Your task to perform on an android device: turn notification dots on Image 0: 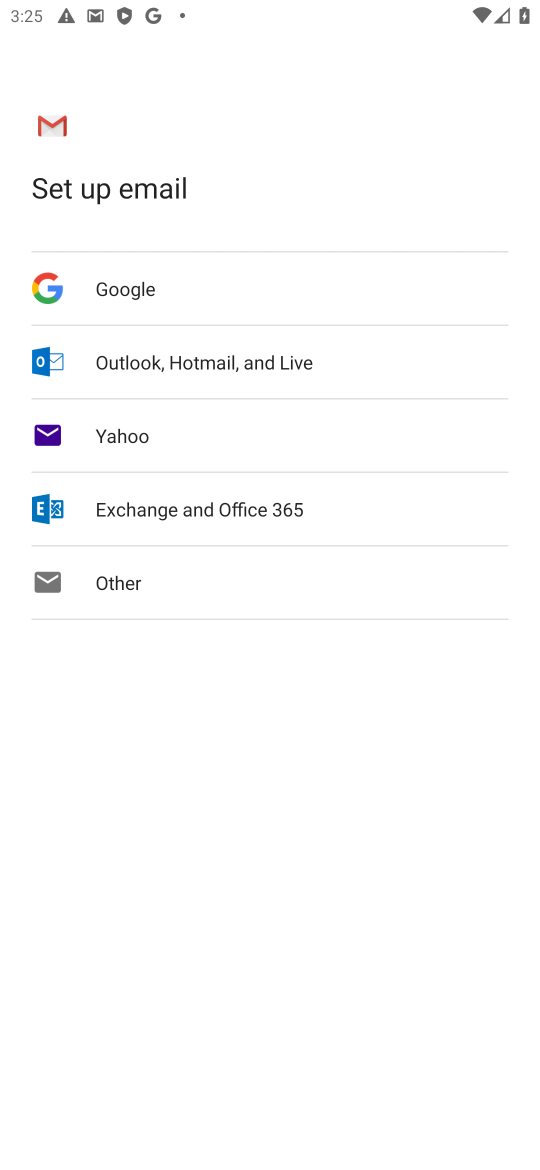
Step 0: press home button
Your task to perform on an android device: turn notification dots on Image 1: 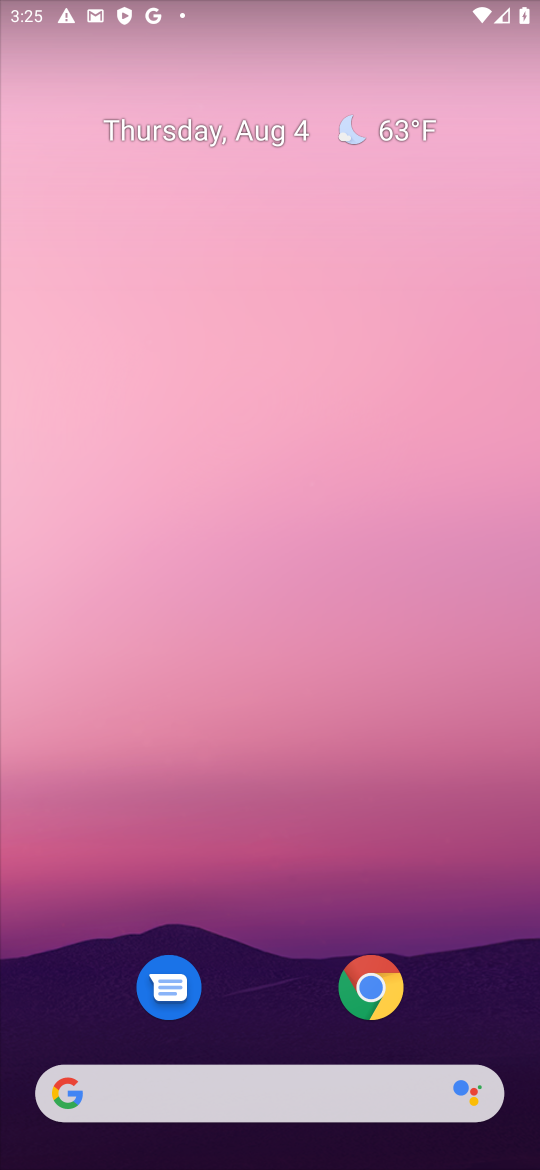
Step 1: drag from (267, 814) to (260, 265)
Your task to perform on an android device: turn notification dots on Image 2: 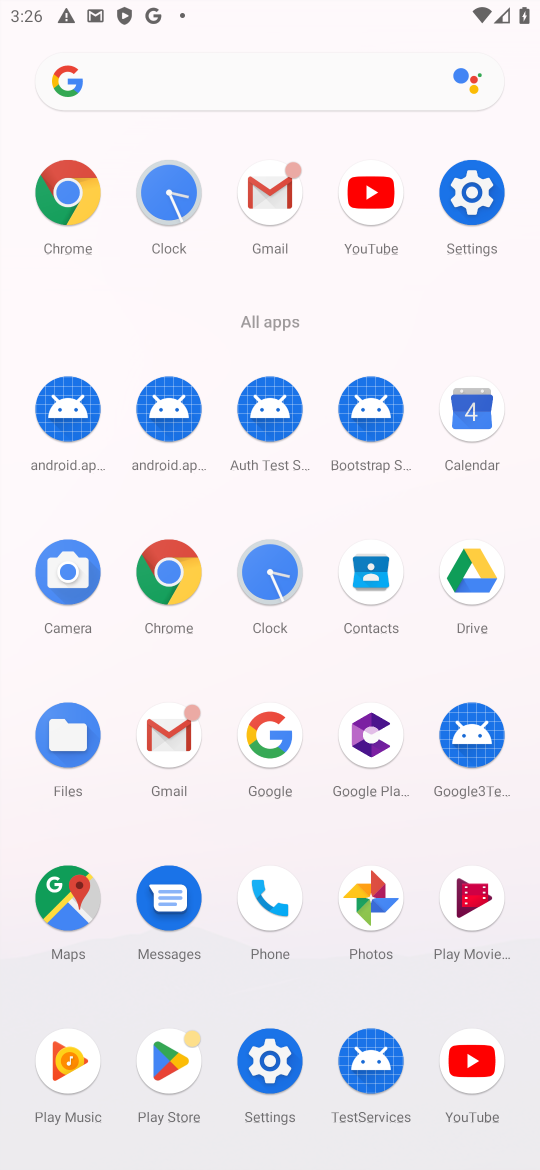
Step 2: click (460, 205)
Your task to perform on an android device: turn notification dots on Image 3: 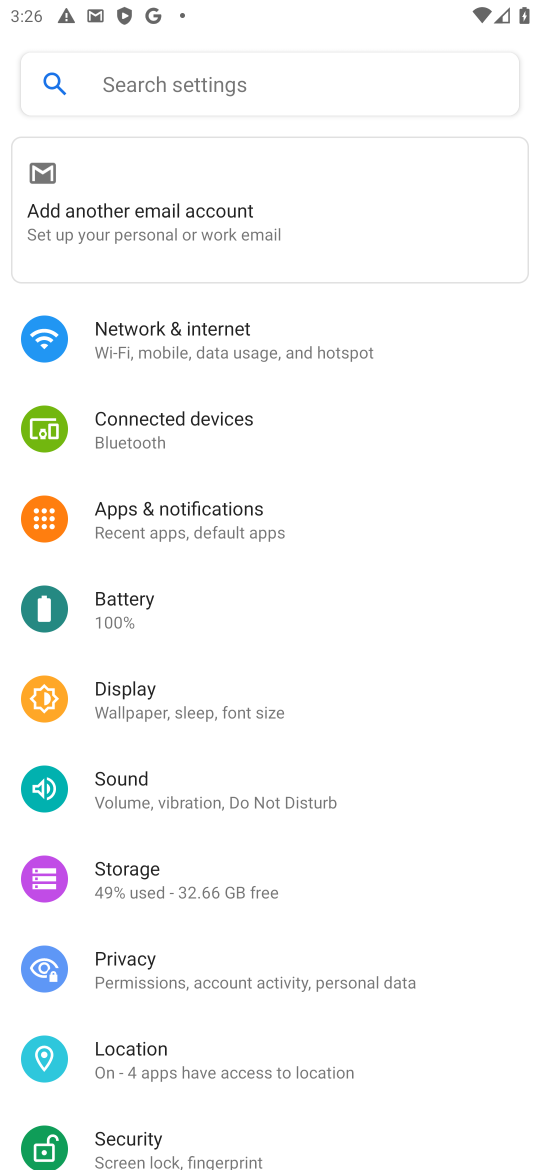
Step 3: click (123, 518)
Your task to perform on an android device: turn notification dots on Image 4: 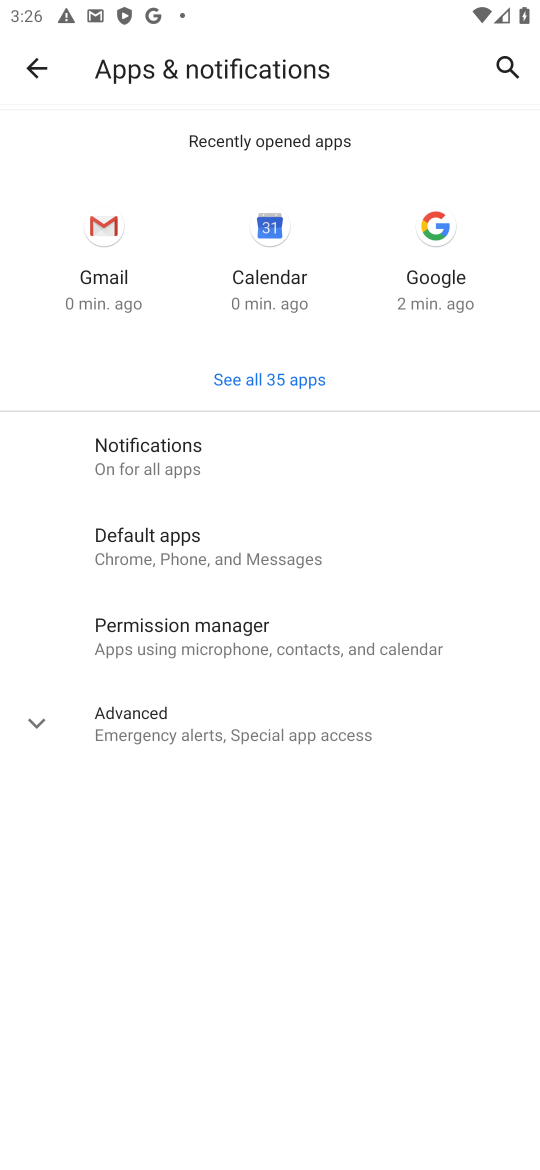
Step 4: click (162, 459)
Your task to perform on an android device: turn notification dots on Image 5: 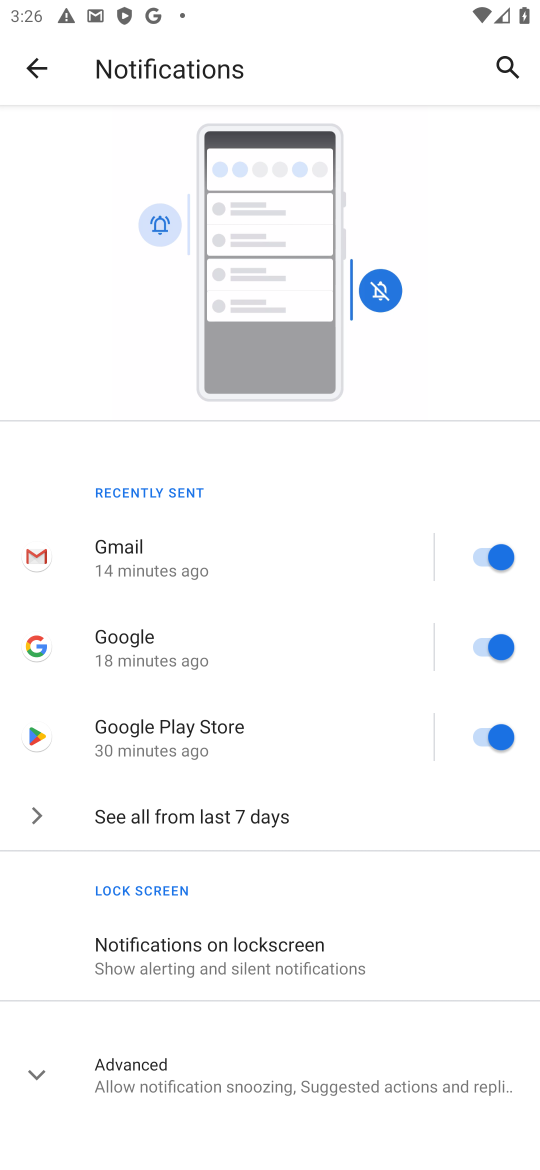
Step 5: drag from (212, 1027) to (298, 507)
Your task to perform on an android device: turn notification dots on Image 6: 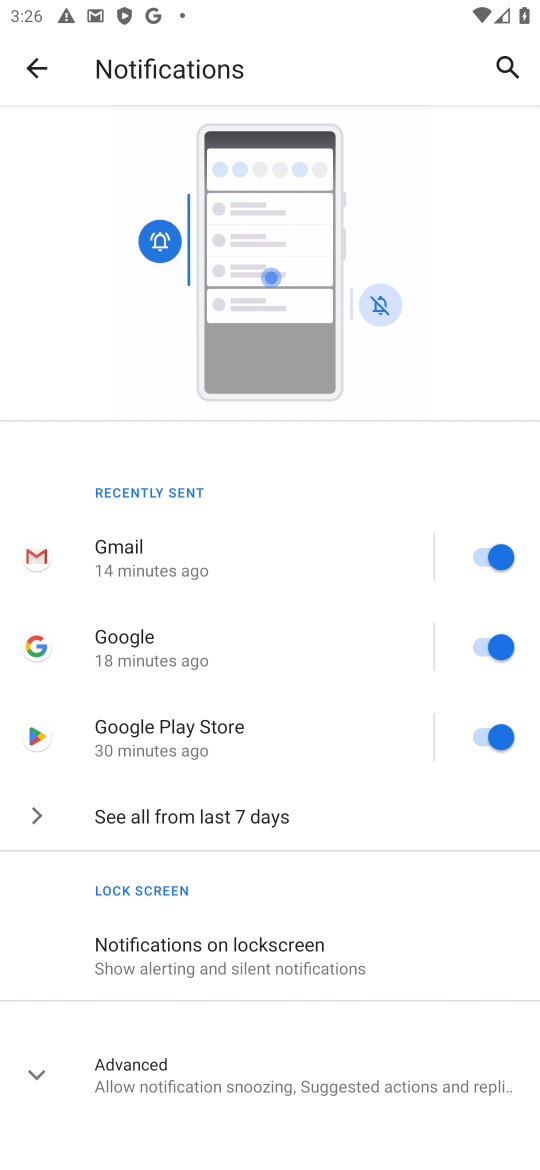
Step 6: click (153, 1084)
Your task to perform on an android device: turn notification dots on Image 7: 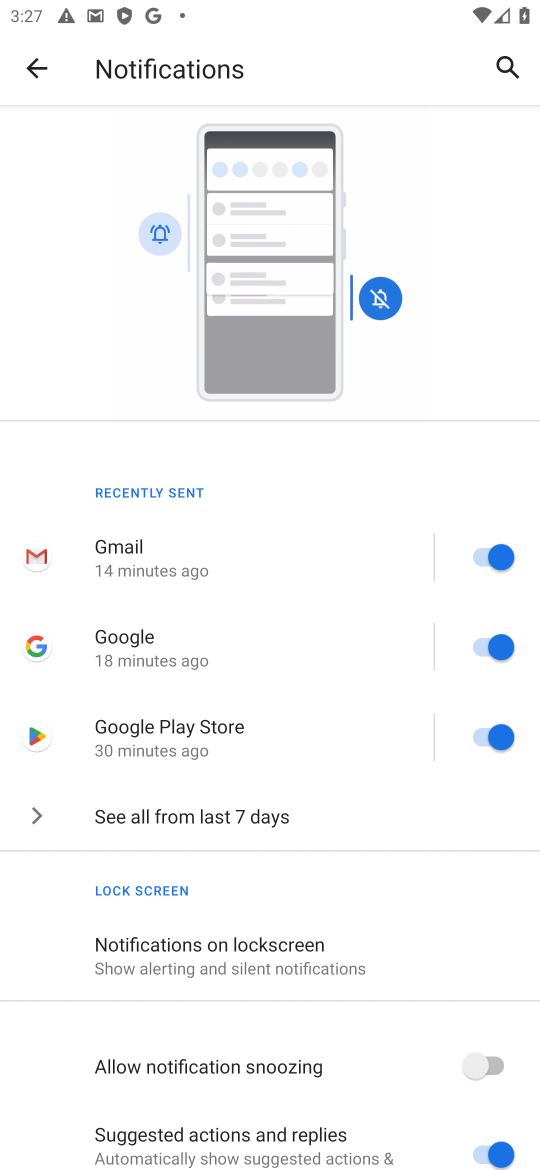
Step 7: drag from (298, 840) to (321, 632)
Your task to perform on an android device: turn notification dots on Image 8: 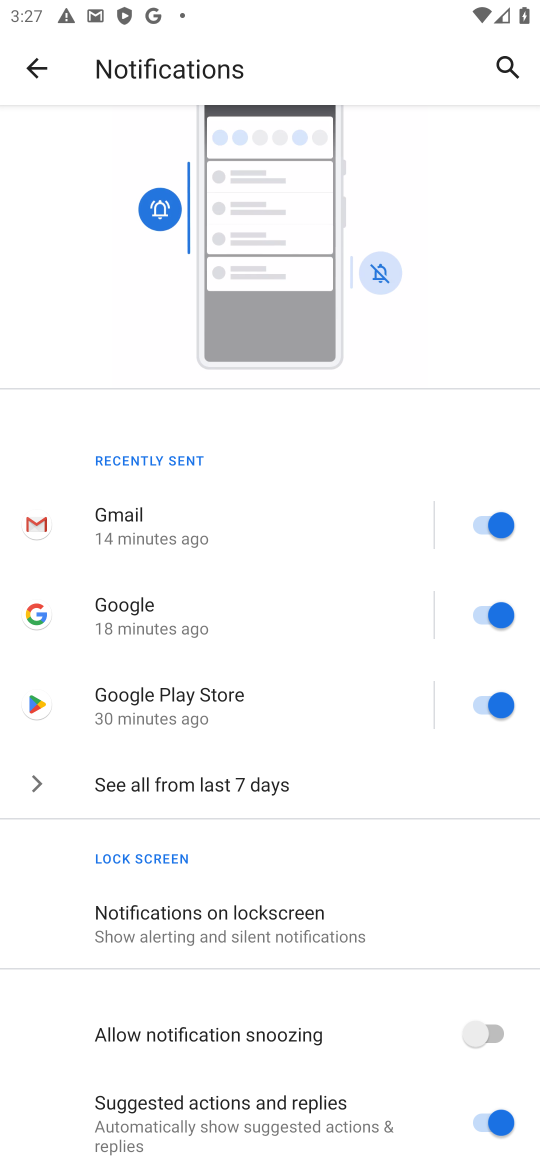
Step 8: click (309, 588)
Your task to perform on an android device: turn notification dots on Image 9: 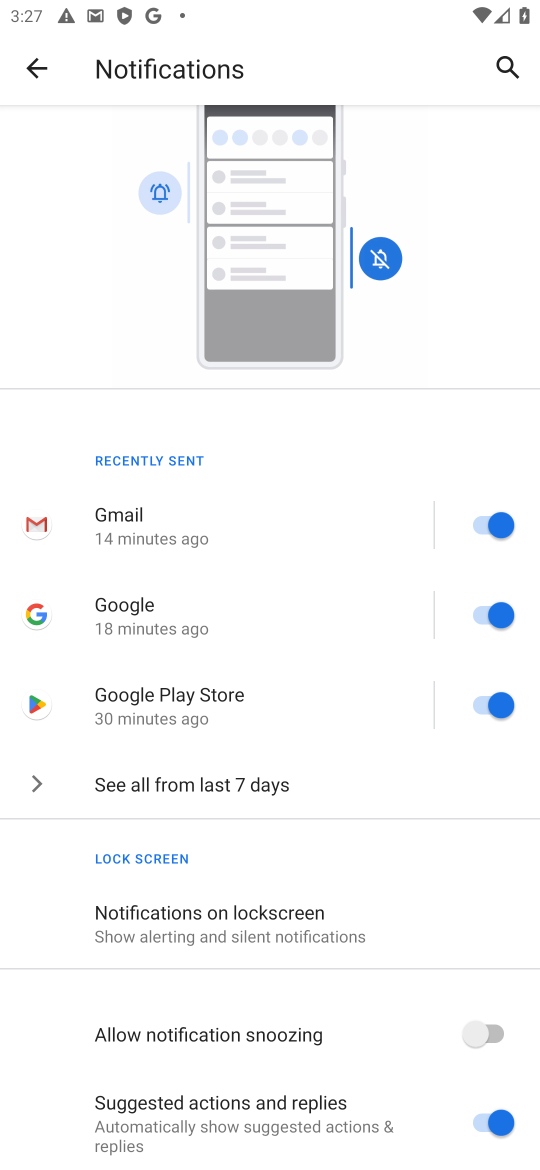
Step 9: task complete